Your task to perform on an android device: install app "Firefox Browser" Image 0: 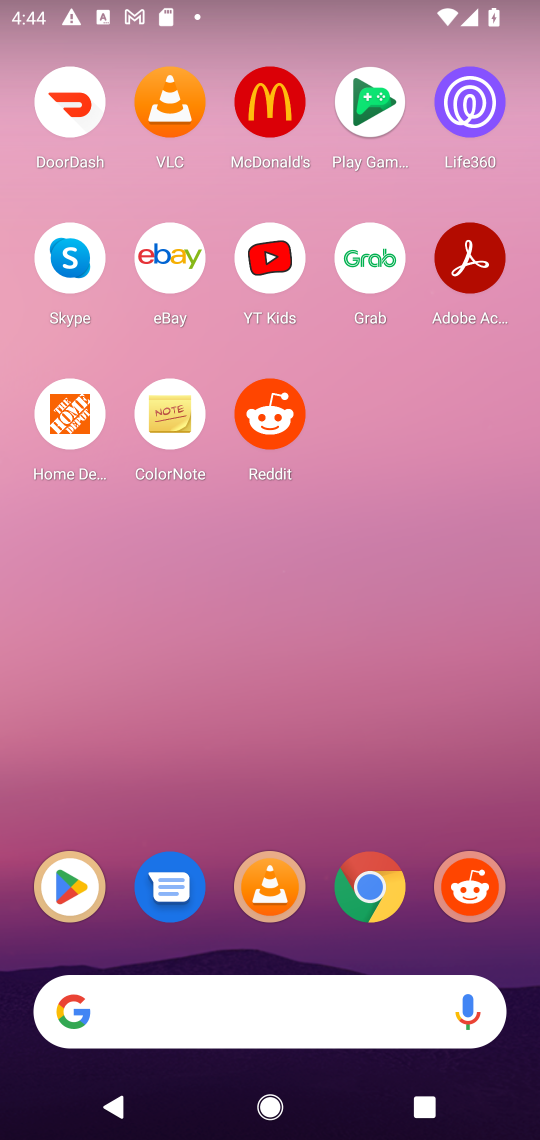
Step 0: click (63, 867)
Your task to perform on an android device: install app "Firefox Browser" Image 1: 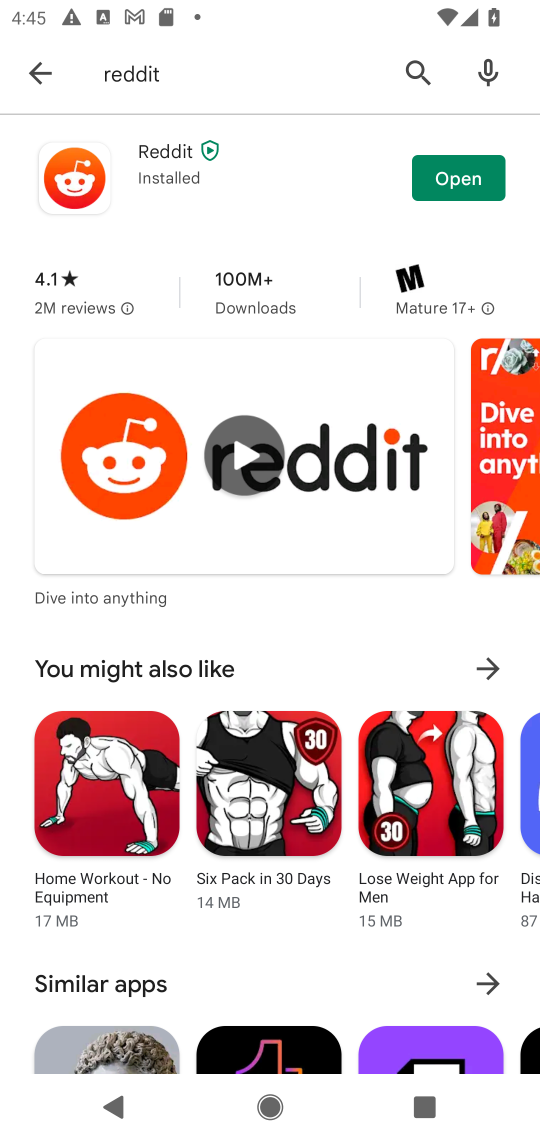
Step 1: click (238, 76)
Your task to perform on an android device: install app "Firefox Browser" Image 2: 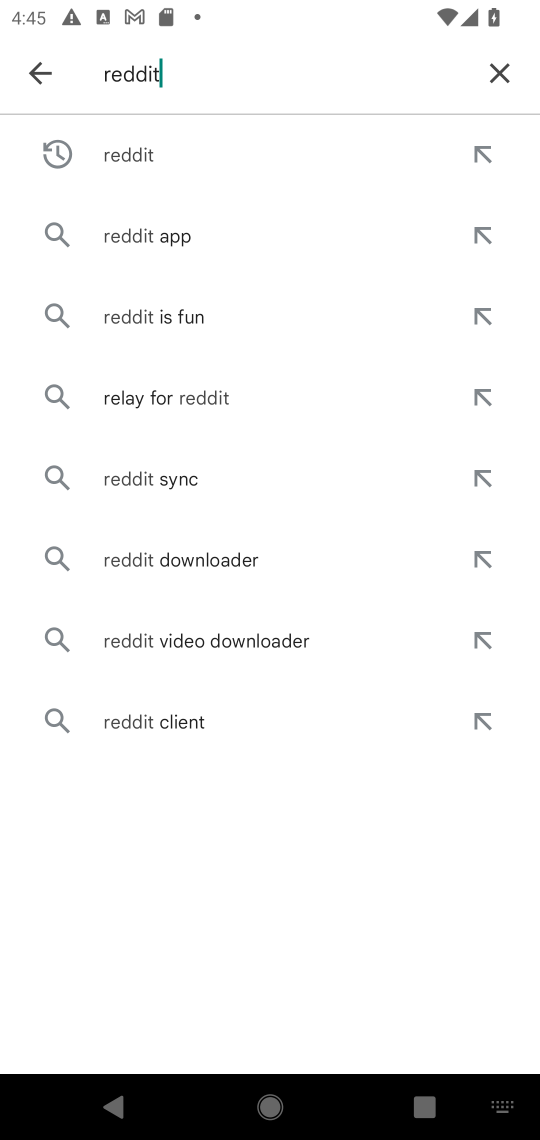
Step 2: click (504, 69)
Your task to perform on an android device: install app "Firefox Browser" Image 3: 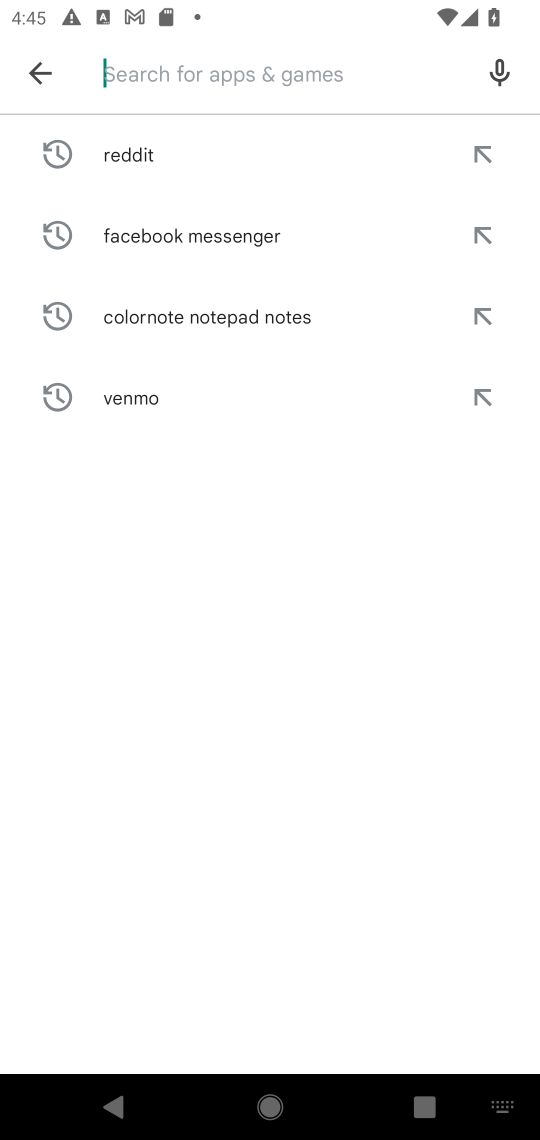
Step 3: type "firefox Browser"
Your task to perform on an android device: install app "Firefox Browser" Image 4: 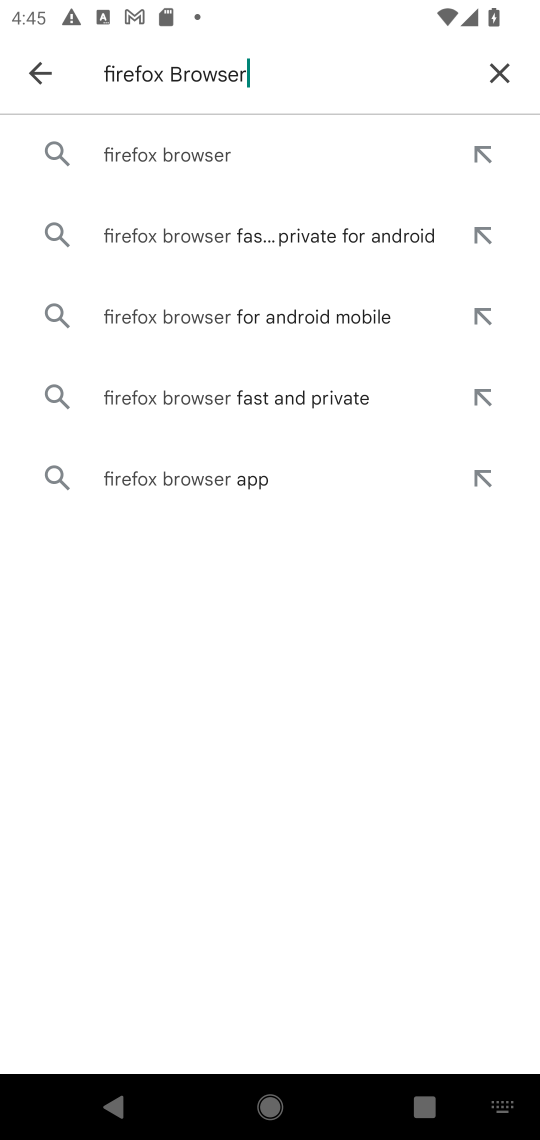
Step 4: click (171, 161)
Your task to perform on an android device: install app "Firefox Browser" Image 5: 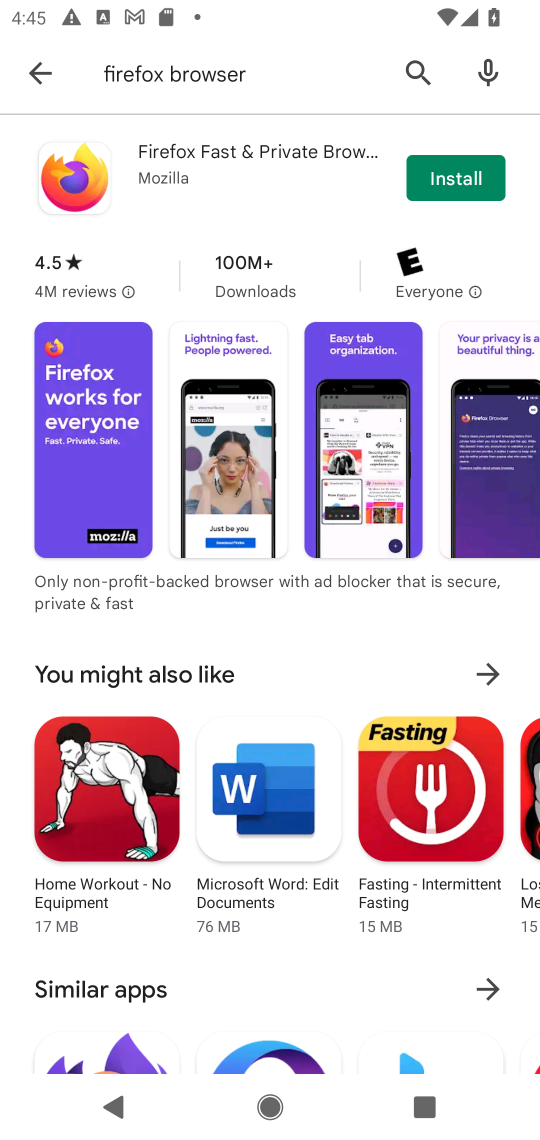
Step 5: click (498, 175)
Your task to perform on an android device: install app "Firefox Browser" Image 6: 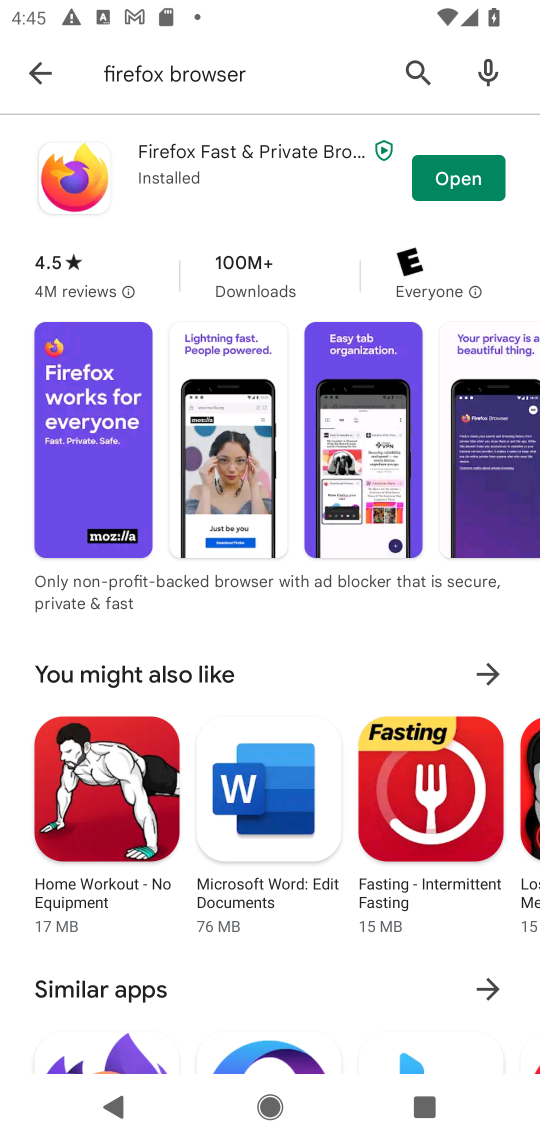
Step 6: task complete